Your task to perform on an android device: toggle show notifications on the lock screen Image 0: 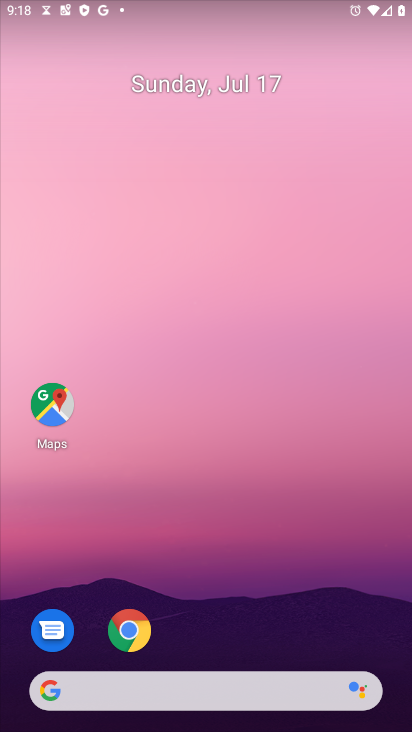
Step 0: drag from (210, 543) to (211, 36)
Your task to perform on an android device: toggle show notifications on the lock screen Image 1: 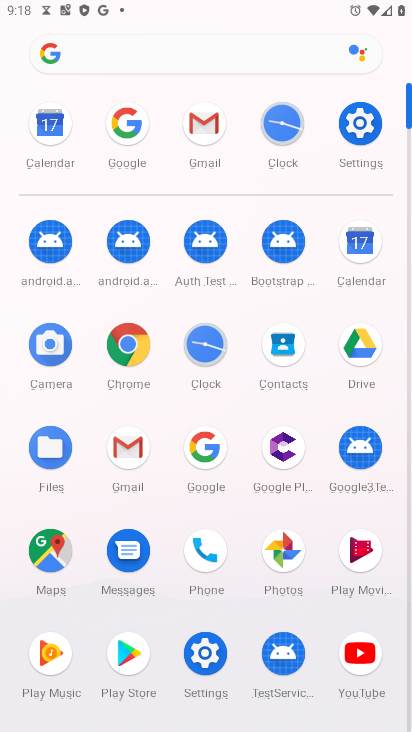
Step 1: click (363, 133)
Your task to perform on an android device: toggle show notifications on the lock screen Image 2: 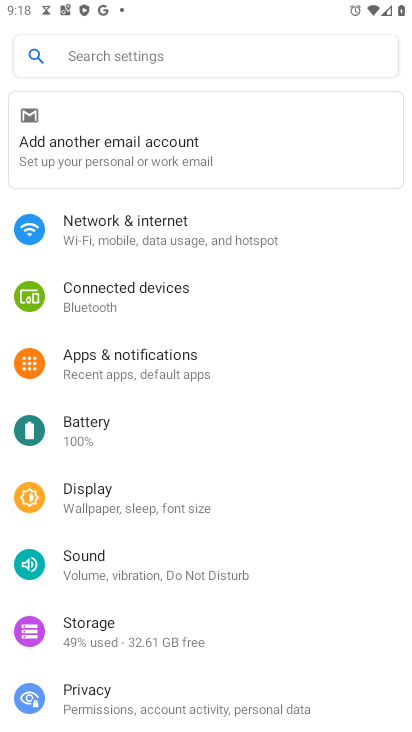
Step 2: click (134, 378)
Your task to perform on an android device: toggle show notifications on the lock screen Image 3: 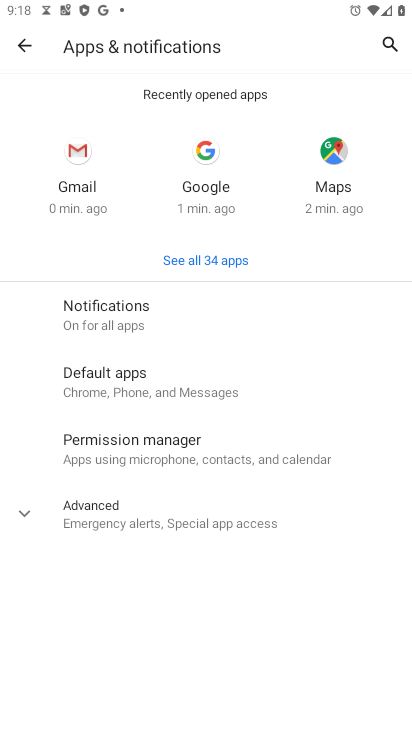
Step 3: click (134, 322)
Your task to perform on an android device: toggle show notifications on the lock screen Image 4: 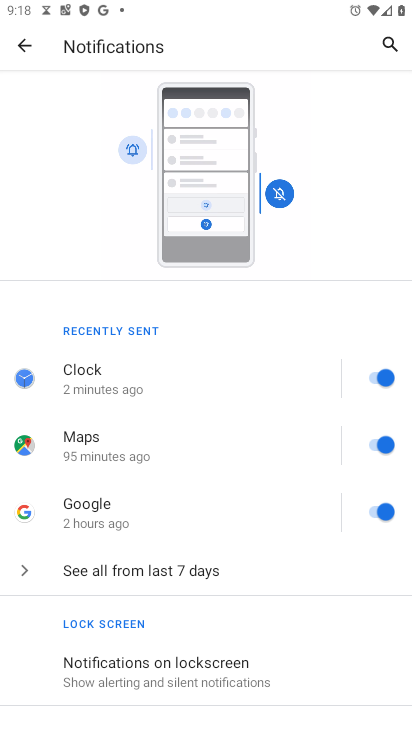
Step 4: click (217, 679)
Your task to perform on an android device: toggle show notifications on the lock screen Image 5: 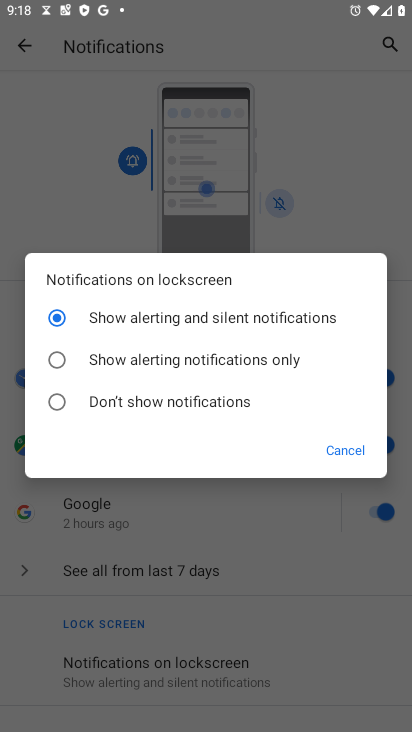
Step 5: click (53, 397)
Your task to perform on an android device: toggle show notifications on the lock screen Image 6: 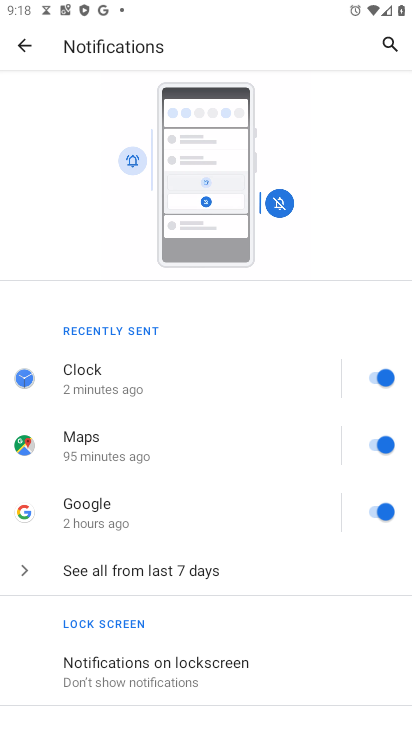
Step 6: task complete